Your task to perform on an android device: Open settings Image 0: 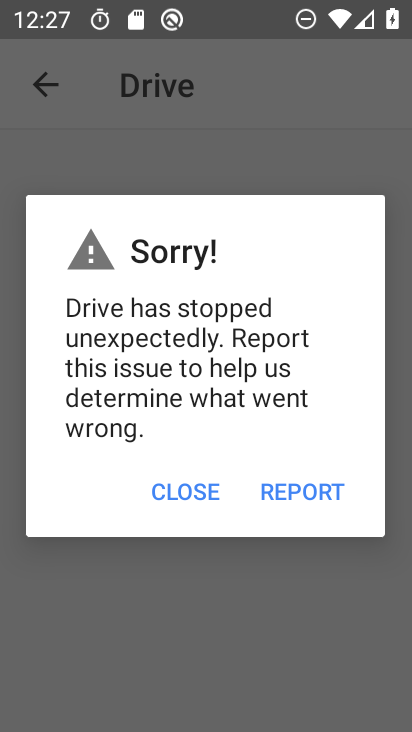
Step 0: press home button
Your task to perform on an android device: Open settings Image 1: 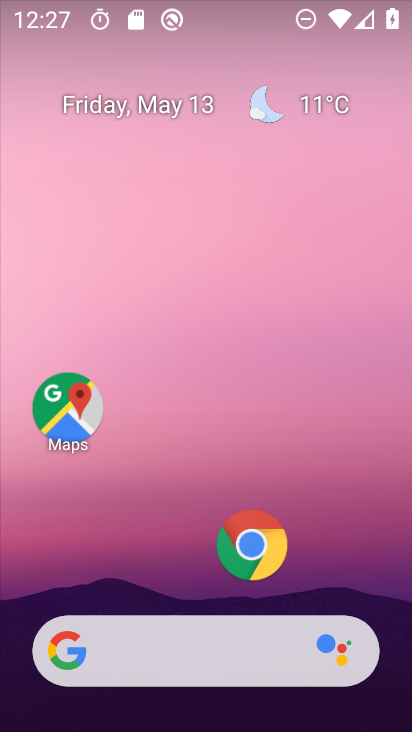
Step 1: drag from (200, 508) to (196, 0)
Your task to perform on an android device: Open settings Image 2: 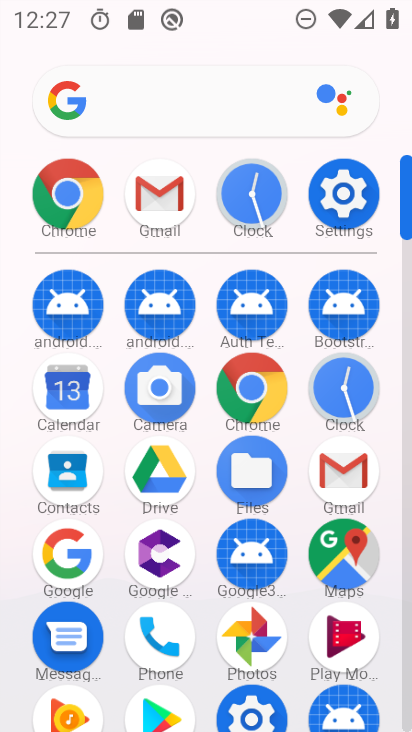
Step 2: click (345, 190)
Your task to perform on an android device: Open settings Image 3: 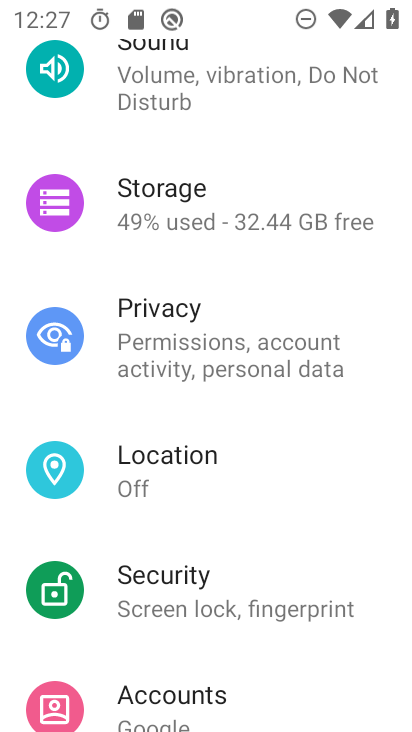
Step 3: task complete